Your task to perform on an android device: snooze an email in the gmail app Image 0: 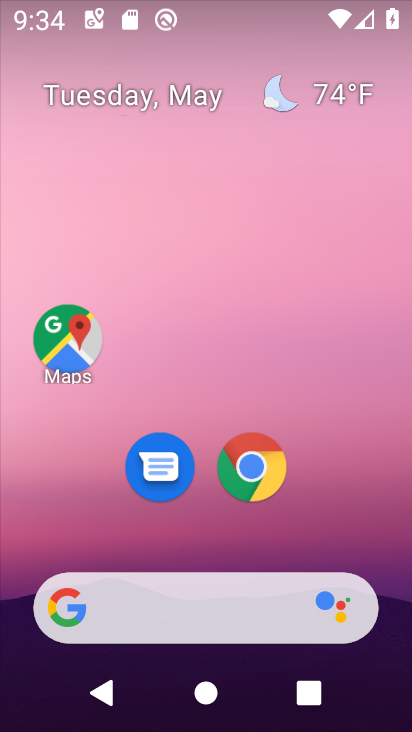
Step 0: drag from (361, 539) to (331, 162)
Your task to perform on an android device: snooze an email in the gmail app Image 1: 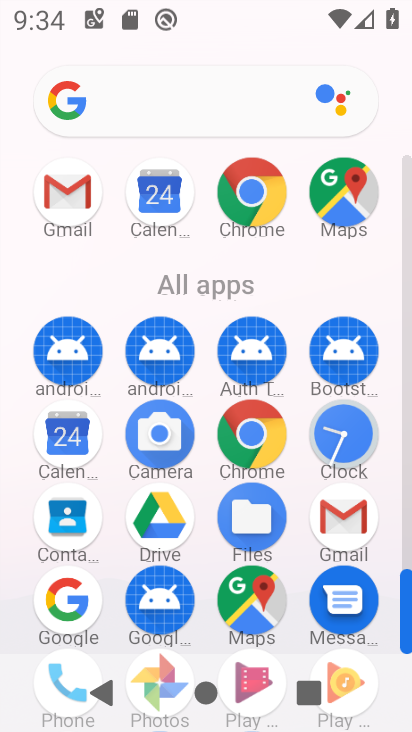
Step 1: click (346, 522)
Your task to perform on an android device: snooze an email in the gmail app Image 2: 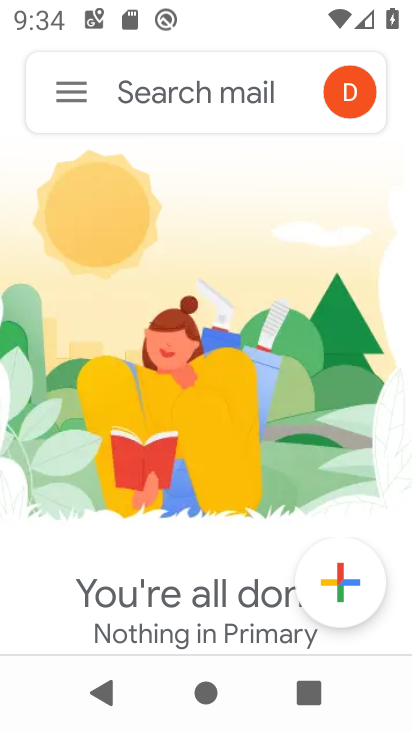
Step 2: click (62, 101)
Your task to perform on an android device: snooze an email in the gmail app Image 3: 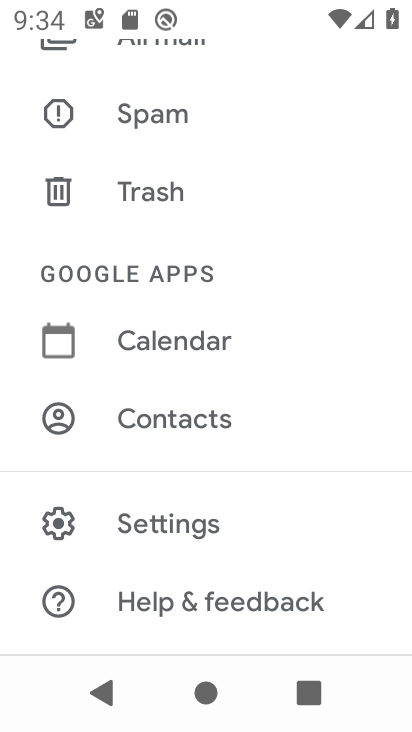
Step 3: drag from (234, 178) to (242, 486)
Your task to perform on an android device: snooze an email in the gmail app Image 4: 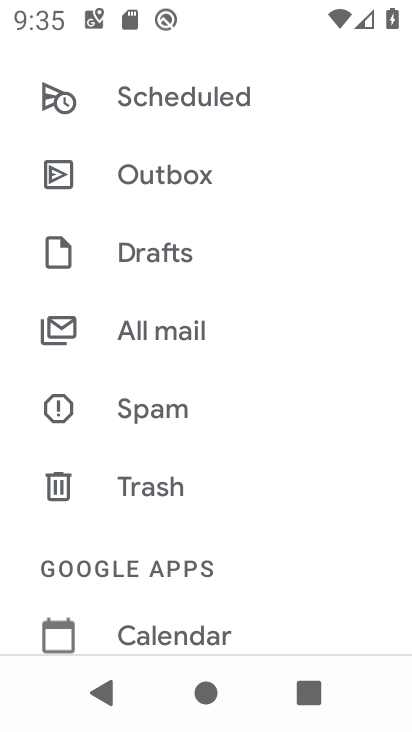
Step 4: drag from (256, 555) to (210, 250)
Your task to perform on an android device: snooze an email in the gmail app Image 5: 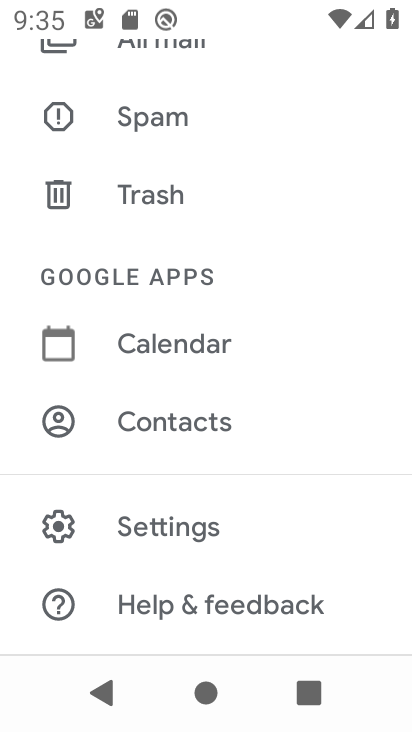
Step 5: drag from (245, 237) to (248, 556)
Your task to perform on an android device: snooze an email in the gmail app Image 6: 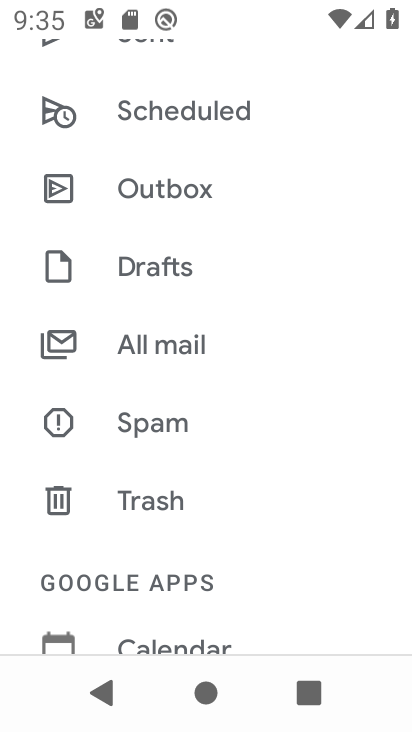
Step 6: drag from (237, 587) to (237, 216)
Your task to perform on an android device: snooze an email in the gmail app Image 7: 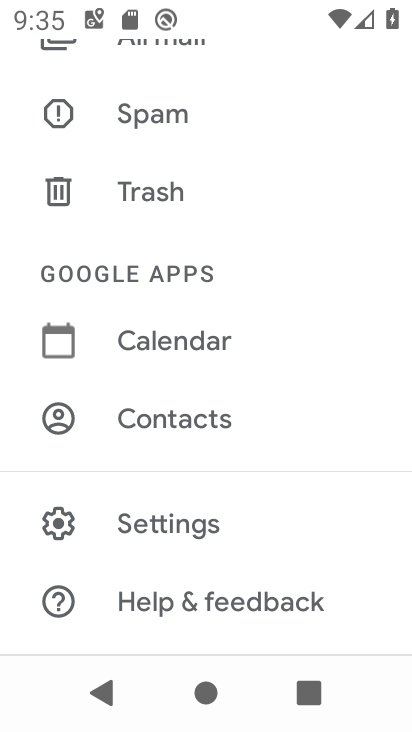
Step 7: drag from (296, 102) to (250, 625)
Your task to perform on an android device: snooze an email in the gmail app Image 8: 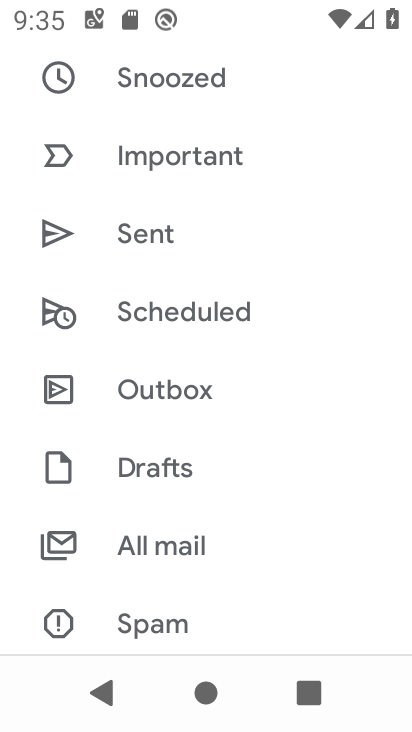
Step 8: click (198, 80)
Your task to perform on an android device: snooze an email in the gmail app Image 9: 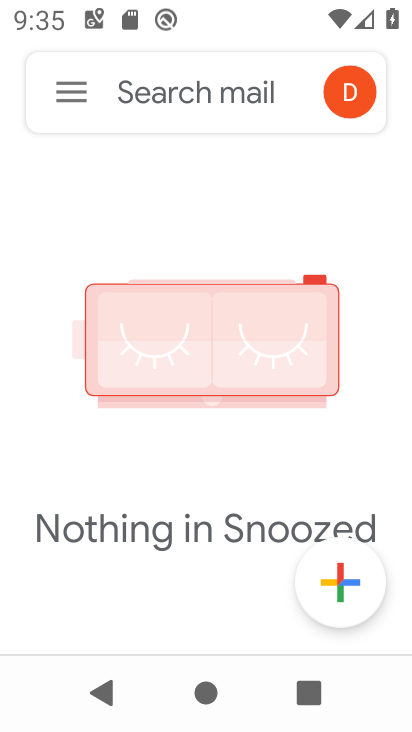
Step 9: task complete